Your task to perform on an android device: What's on my calendar tomorrow? Image 0: 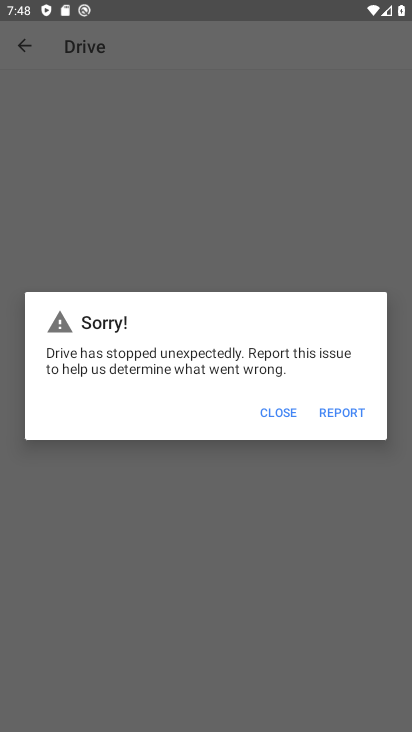
Step 0: press home button
Your task to perform on an android device: What's on my calendar tomorrow? Image 1: 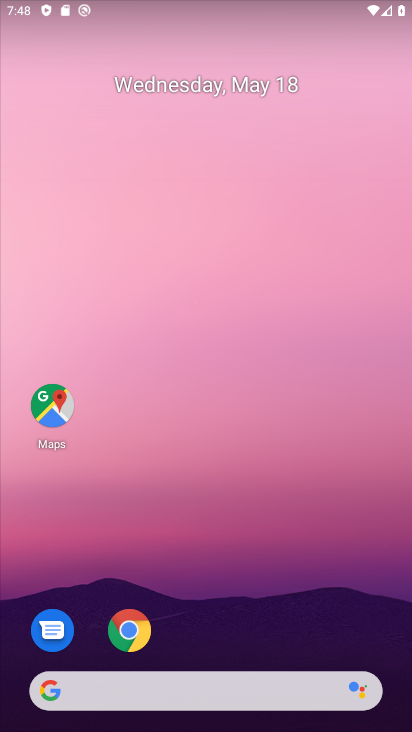
Step 1: drag from (206, 518) to (109, 98)
Your task to perform on an android device: What's on my calendar tomorrow? Image 2: 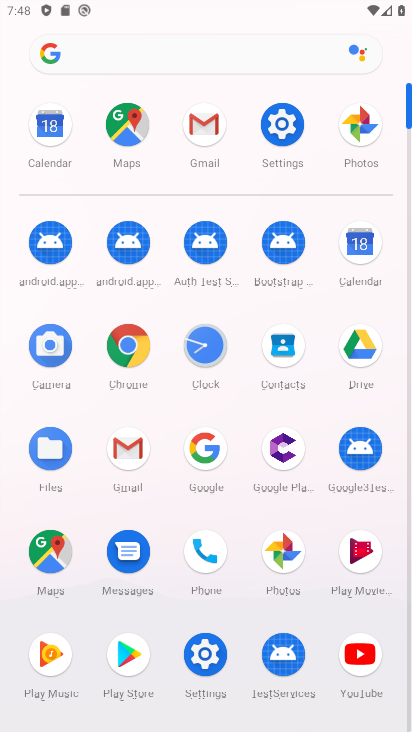
Step 2: click (358, 252)
Your task to perform on an android device: What's on my calendar tomorrow? Image 3: 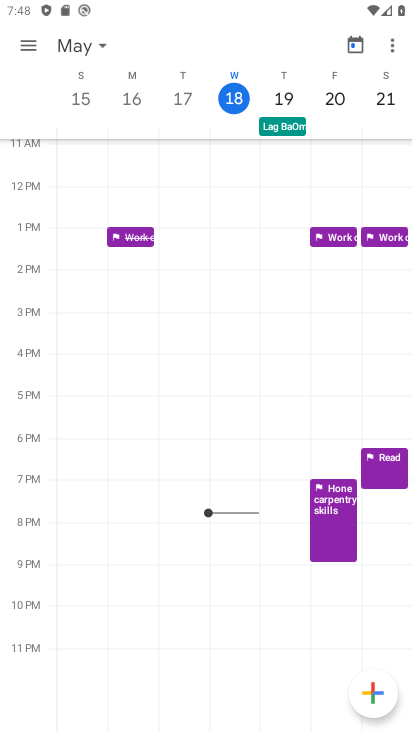
Step 3: click (280, 100)
Your task to perform on an android device: What's on my calendar tomorrow? Image 4: 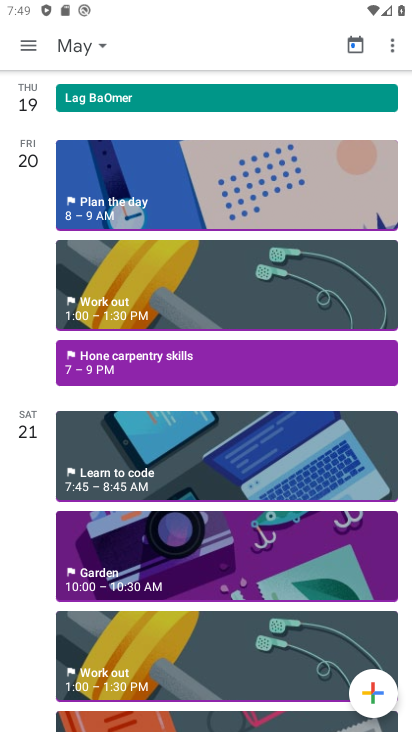
Step 4: click (27, 39)
Your task to perform on an android device: What's on my calendar tomorrow? Image 5: 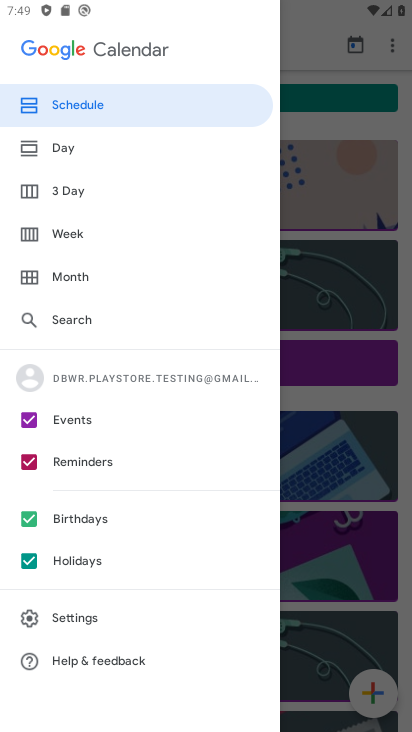
Step 5: click (61, 142)
Your task to perform on an android device: What's on my calendar tomorrow? Image 6: 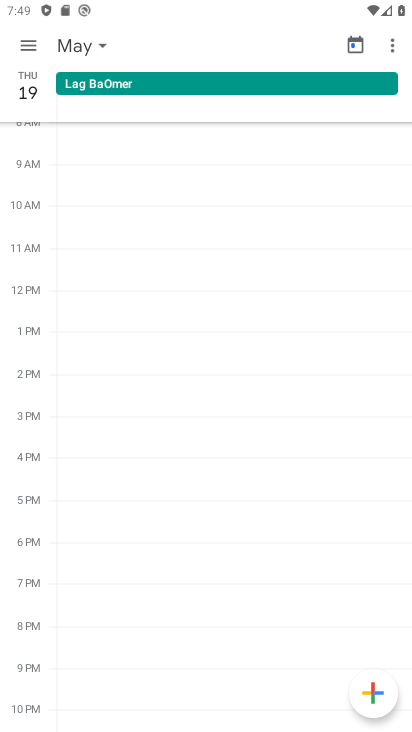
Step 6: task complete